Your task to perform on an android device: Do I have any events tomorrow? Image 0: 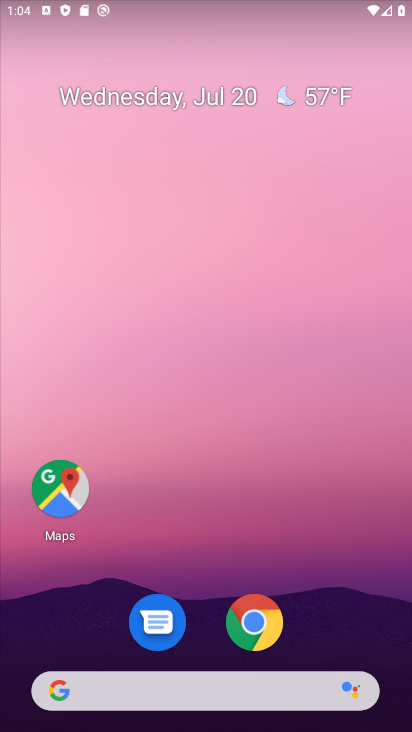
Step 0: drag from (198, 583) to (199, 144)
Your task to perform on an android device: Do I have any events tomorrow? Image 1: 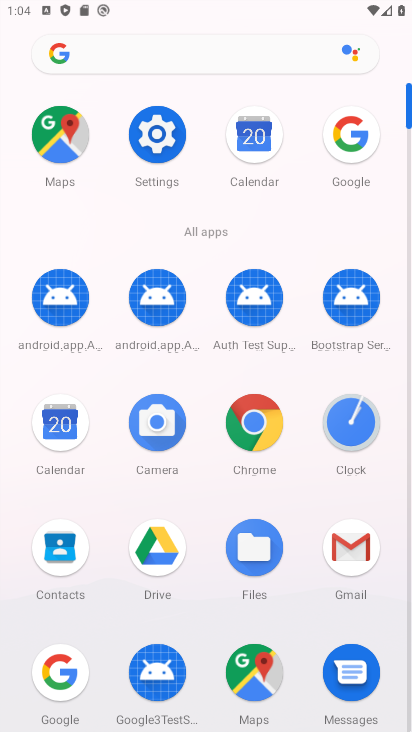
Step 1: click (242, 129)
Your task to perform on an android device: Do I have any events tomorrow? Image 2: 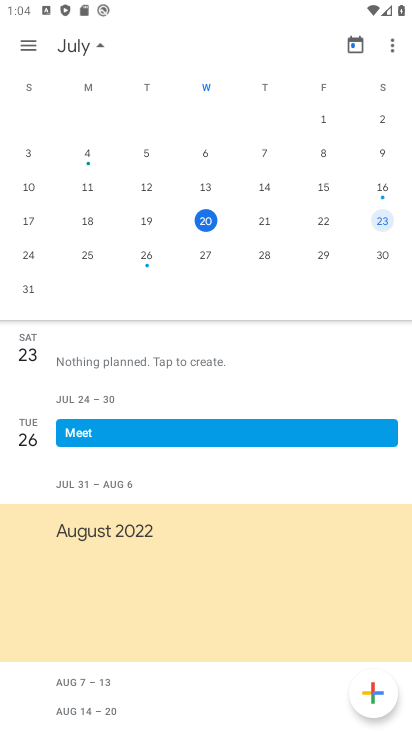
Step 2: click (259, 213)
Your task to perform on an android device: Do I have any events tomorrow? Image 3: 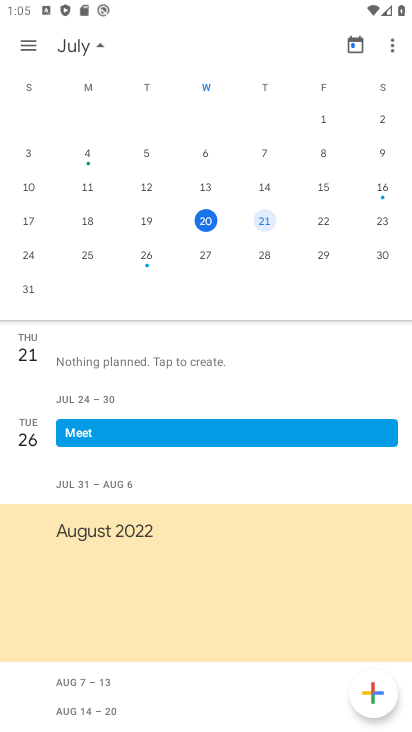
Step 3: click (265, 223)
Your task to perform on an android device: Do I have any events tomorrow? Image 4: 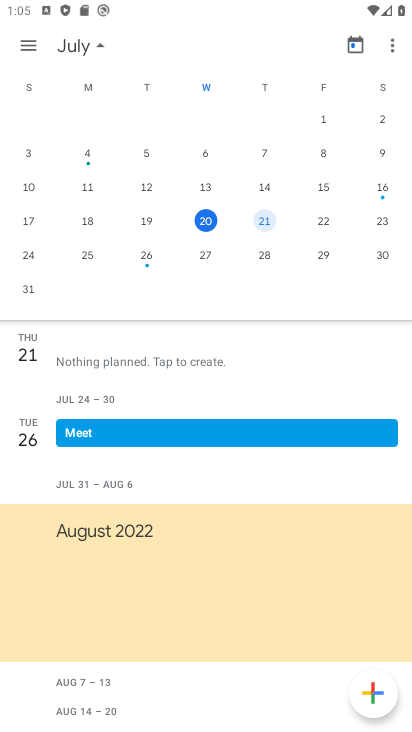
Step 4: task complete